Your task to perform on an android device: turn off improve location accuracy Image 0: 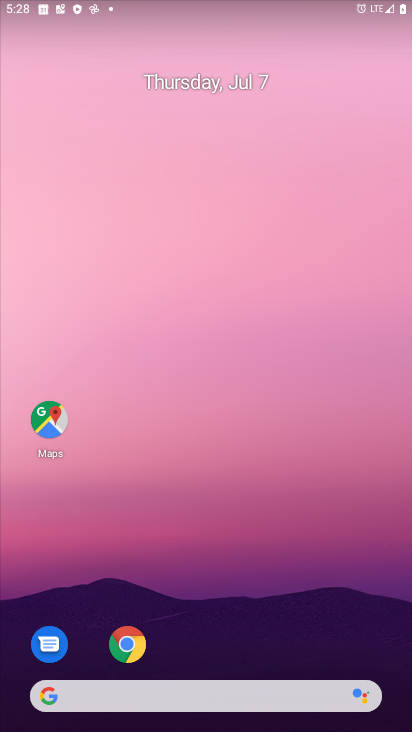
Step 0: drag from (245, 603) to (217, 147)
Your task to perform on an android device: turn off improve location accuracy Image 1: 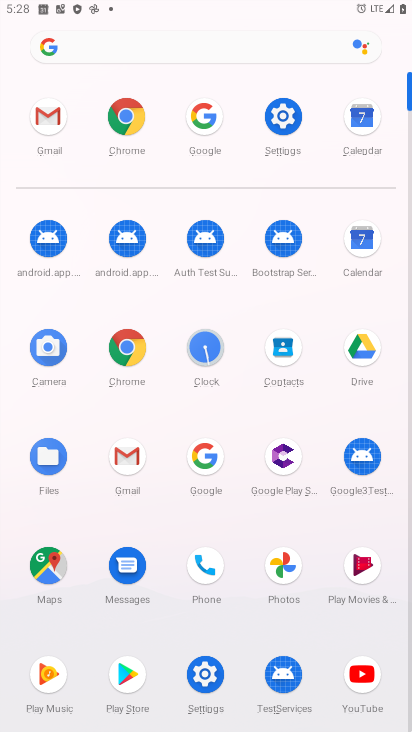
Step 1: click (202, 675)
Your task to perform on an android device: turn off improve location accuracy Image 2: 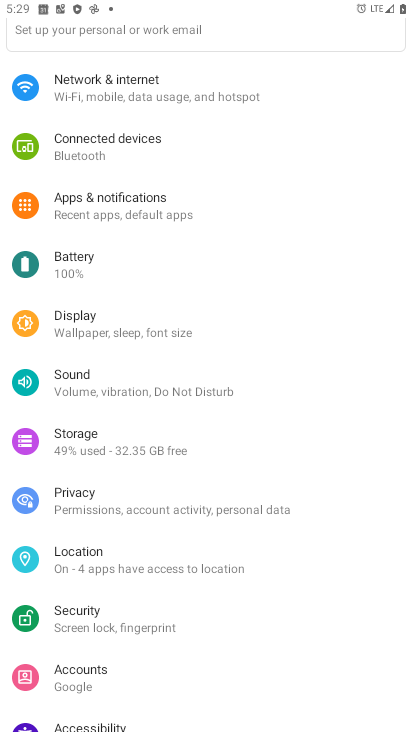
Step 2: click (99, 555)
Your task to perform on an android device: turn off improve location accuracy Image 3: 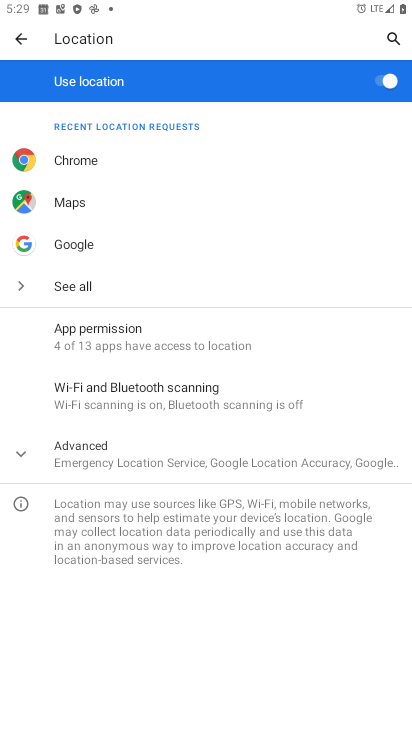
Step 3: click (129, 465)
Your task to perform on an android device: turn off improve location accuracy Image 4: 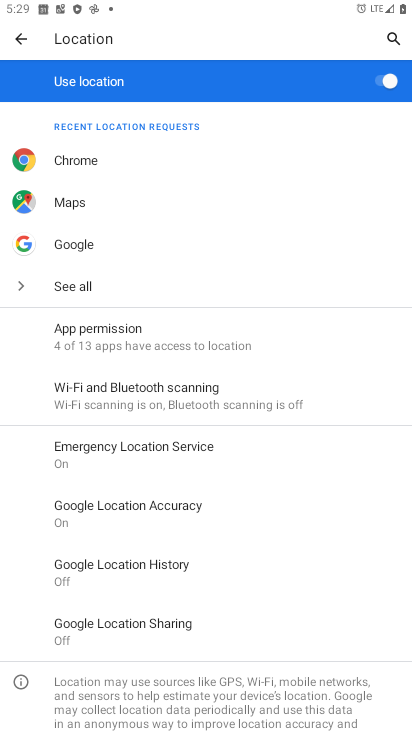
Step 4: click (109, 510)
Your task to perform on an android device: turn off improve location accuracy Image 5: 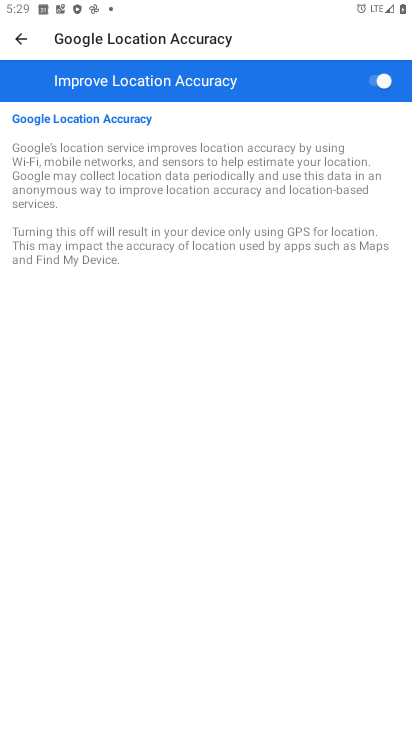
Step 5: click (383, 89)
Your task to perform on an android device: turn off improve location accuracy Image 6: 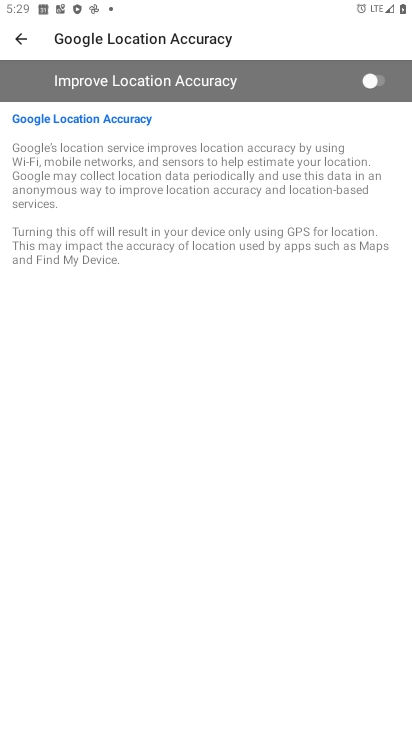
Step 6: task complete